Your task to perform on an android device: Go to Reddit.com Image 0: 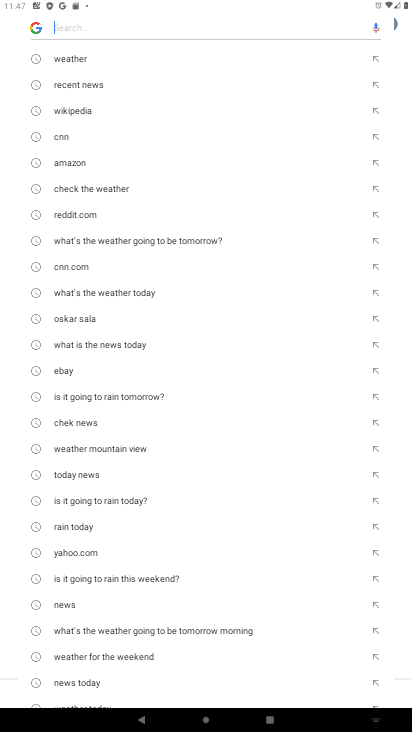
Step 0: press home button
Your task to perform on an android device: Go to Reddit.com Image 1: 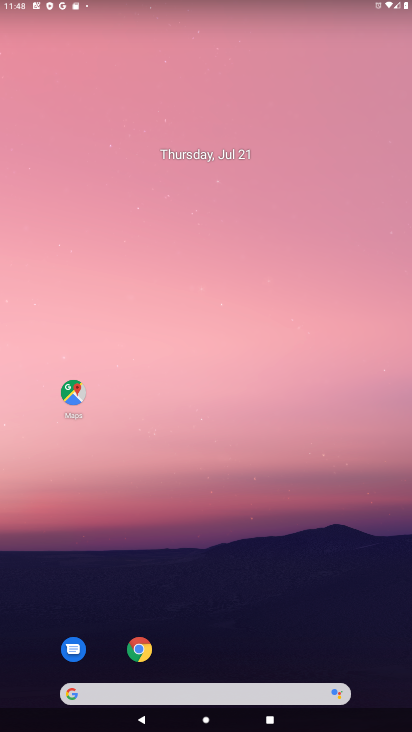
Step 1: drag from (294, 633) to (231, 88)
Your task to perform on an android device: Go to Reddit.com Image 2: 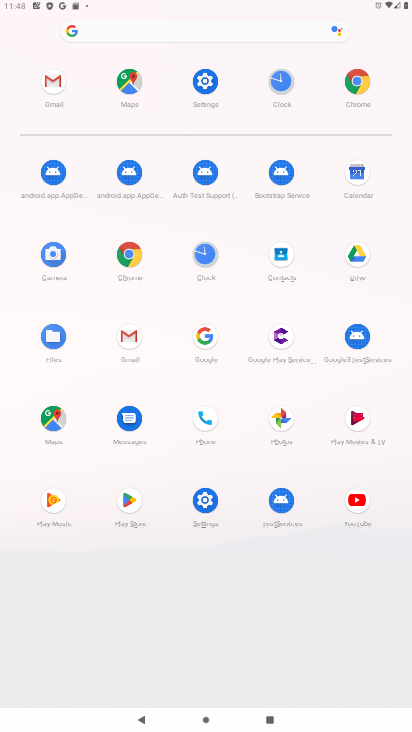
Step 2: click (350, 78)
Your task to perform on an android device: Go to Reddit.com Image 3: 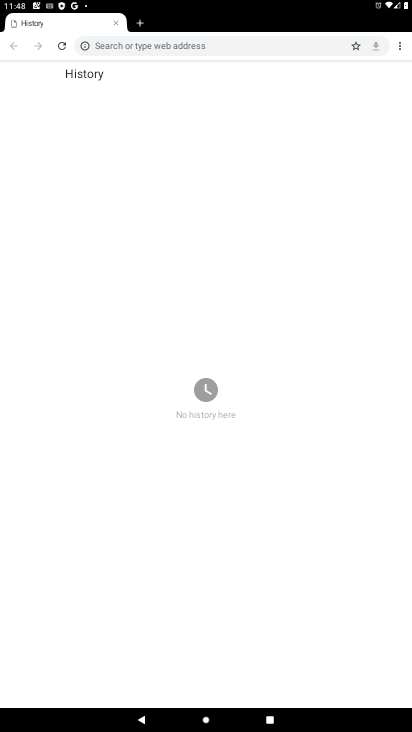
Step 3: click (223, 47)
Your task to perform on an android device: Go to Reddit.com Image 4: 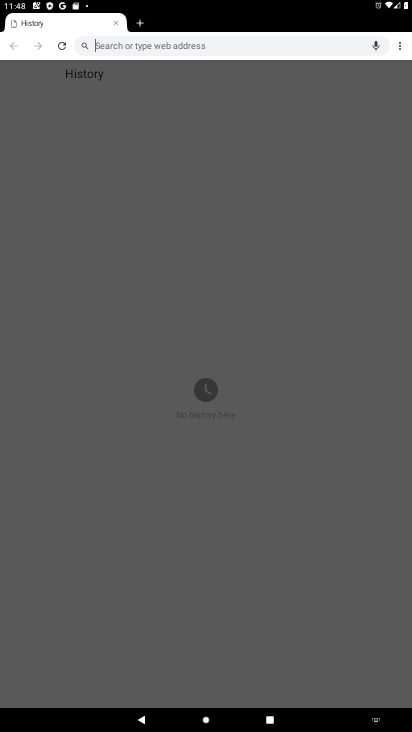
Step 4: type "reddit.com"
Your task to perform on an android device: Go to Reddit.com Image 5: 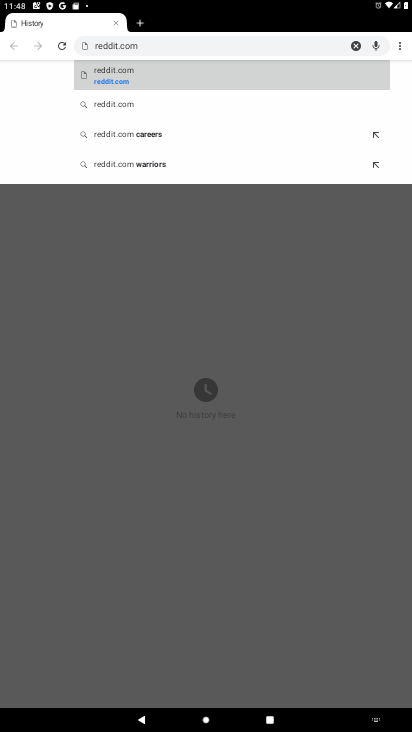
Step 5: click (149, 78)
Your task to perform on an android device: Go to Reddit.com Image 6: 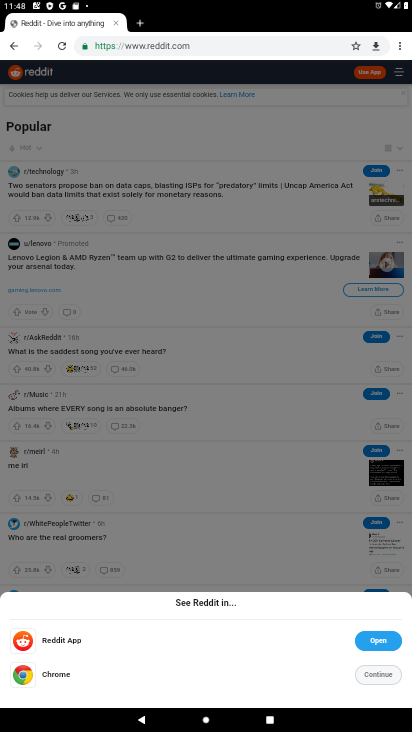
Step 6: task complete